Your task to perform on an android device: Search for Italian restaurants on Maps Image 0: 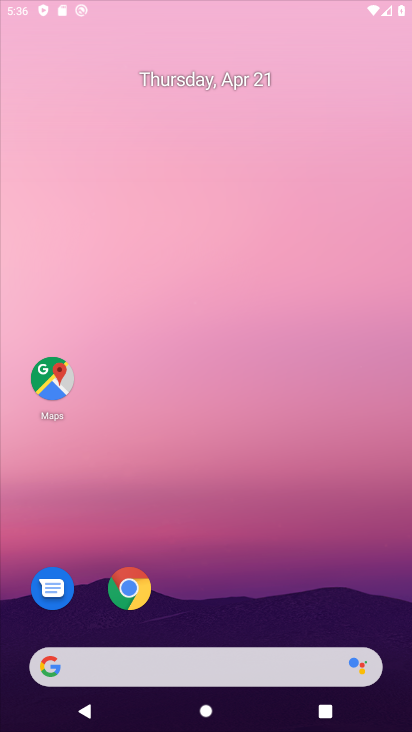
Step 0: click (190, 191)
Your task to perform on an android device: Search for Italian restaurants on Maps Image 1: 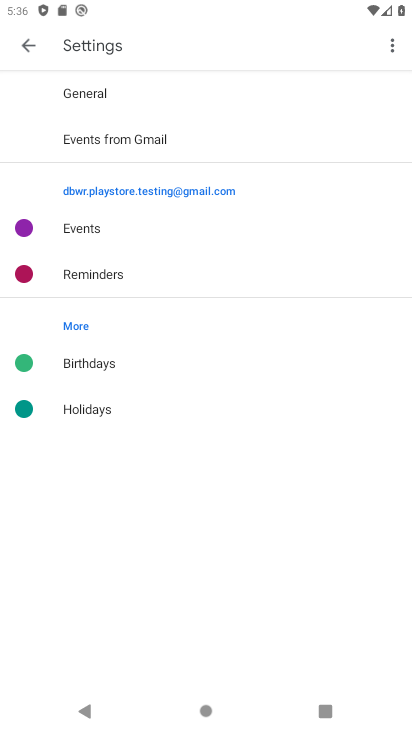
Step 1: press home button
Your task to perform on an android device: Search for Italian restaurants on Maps Image 2: 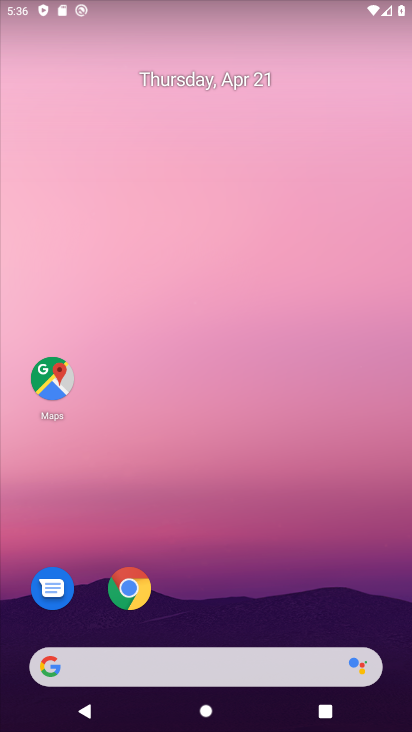
Step 2: click (56, 366)
Your task to perform on an android device: Search for Italian restaurants on Maps Image 3: 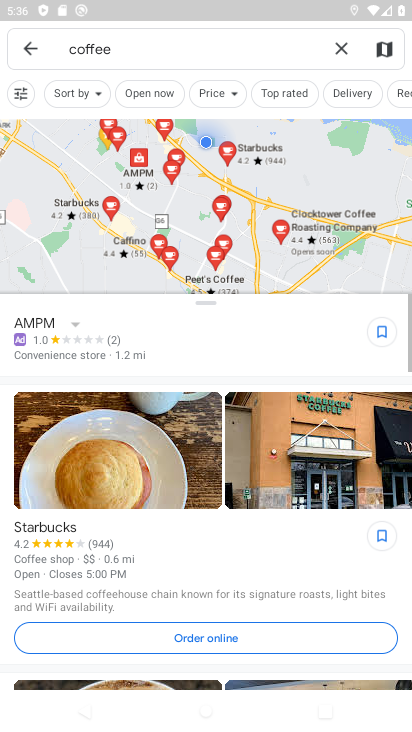
Step 3: click (346, 48)
Your task to perform on an android device: Search for Italian restaurants on Maps Image 4: 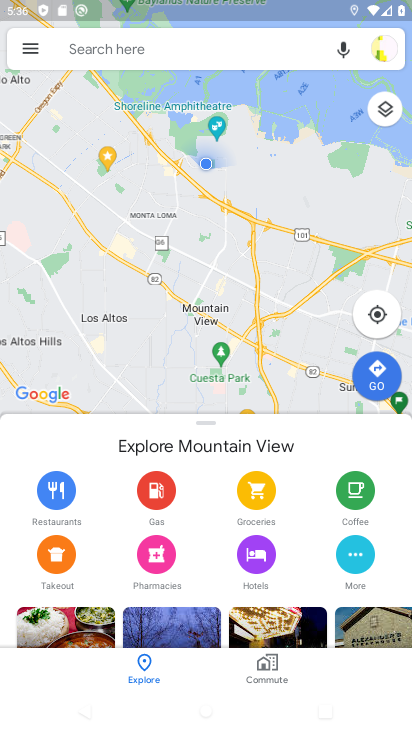
Step 4: click (133, 48)
Your task to perform on an android device: Search for Italian restaurants on Maps Image 5: 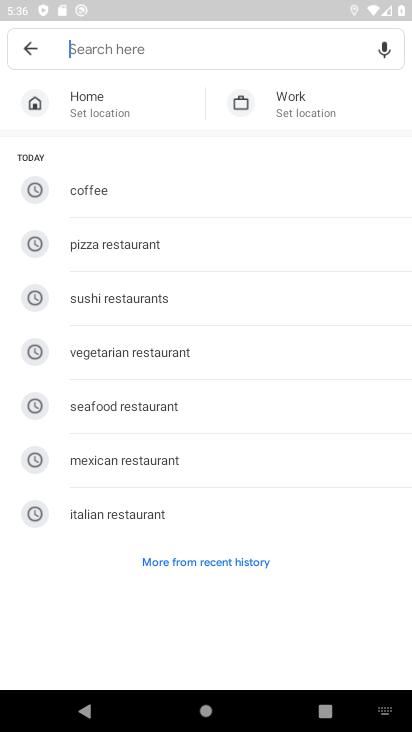
Step 5: click (105, 514)
Your task to perform on an android device: Search for Italian restaurants on Maps Image 6: 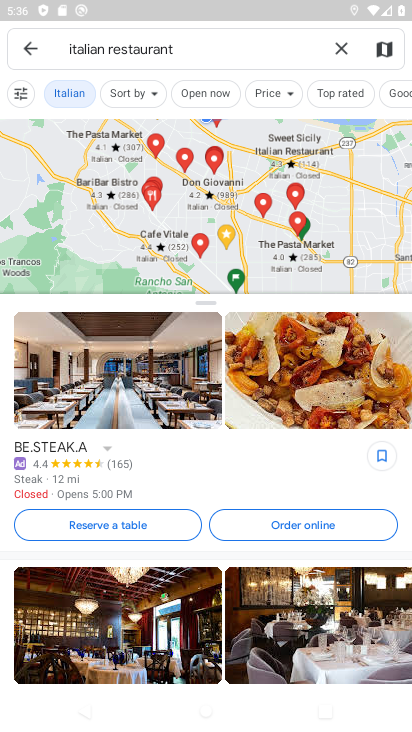
Step 6: task complete